Your task to perform on an android device: change the clock style Image 0: 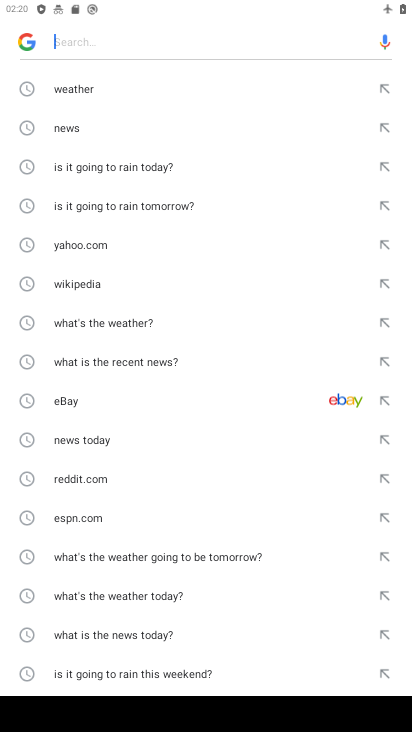
Step 0: press home button
Your task to perform on an android device: change the clock style Image 1: 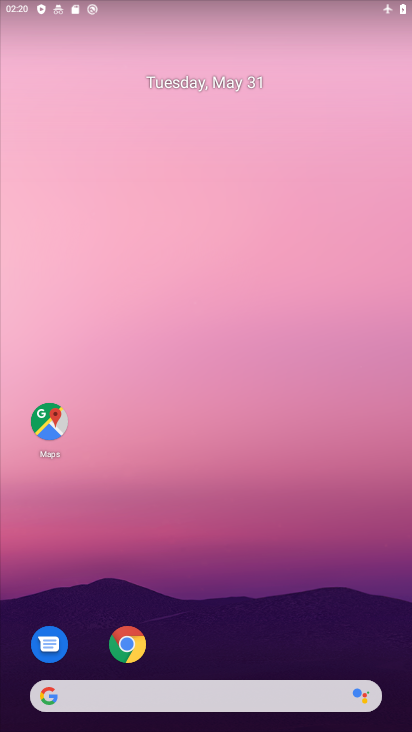
Step 1: drag from (313, 624) to (266, 135)
Your task to perform on an android device: change the clock style Image 2: 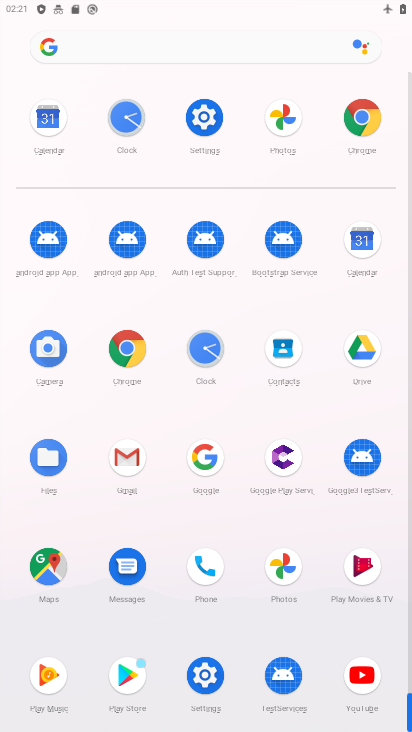
Step 2: click (205, 344)
Your task to perform on an android device: change the clock style Image 3: 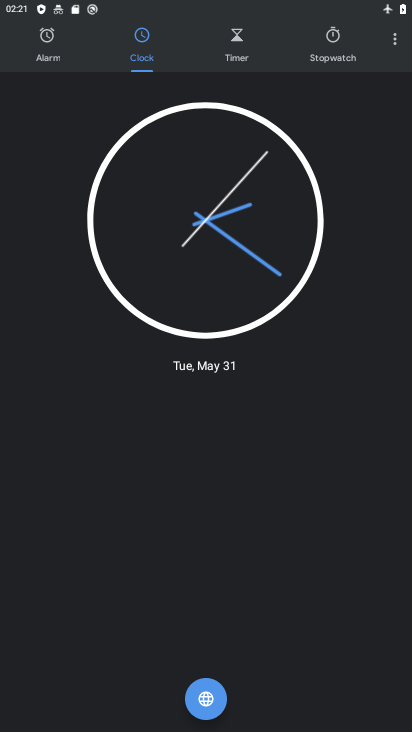
Step 3: click (400, 37)
Your task to perform on an android device: change the clock style Image 4: 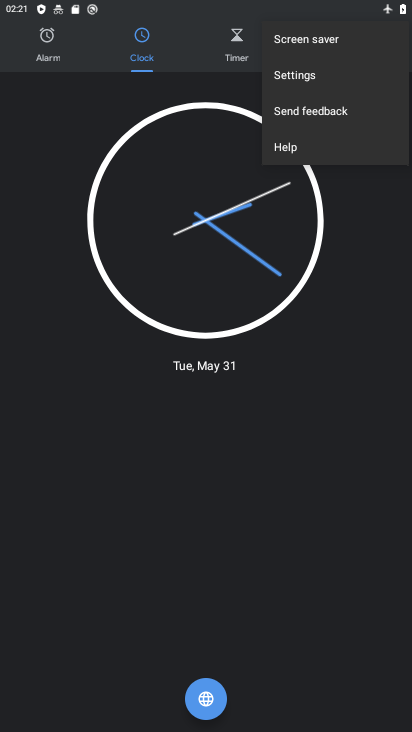
Step 4: click (296, 88)
Your task to perform on an android device: change the clock style Image 5: 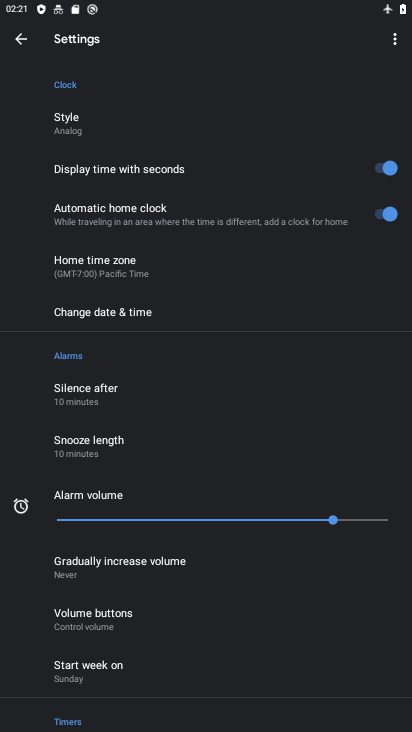
Step 5: drag from (89, 160) to (144, 551)
Your task to perform on an android device: change the clock style Image 6: 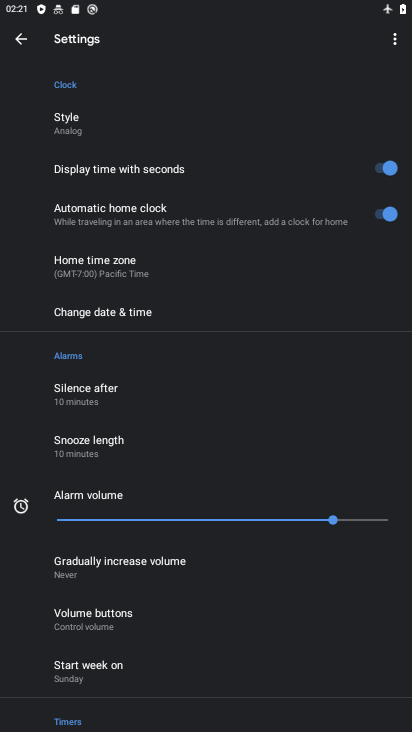
Step 6: click (72, 128)
Your task to perform on an android device: change the clock style Image 7: 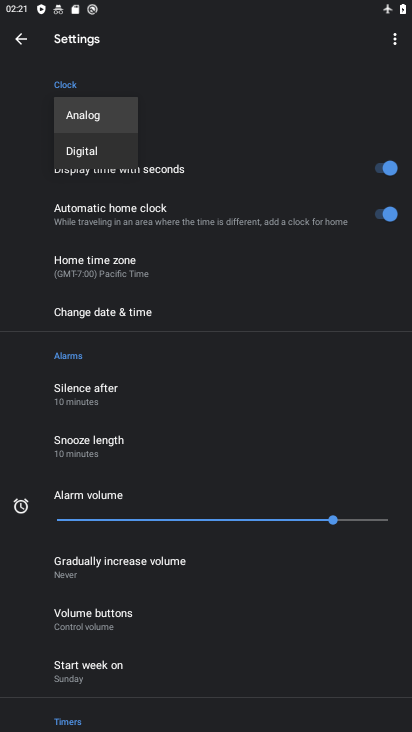
Step 7: click (99, 150)
Your task to perform on an android device: change the clock style Image 8: 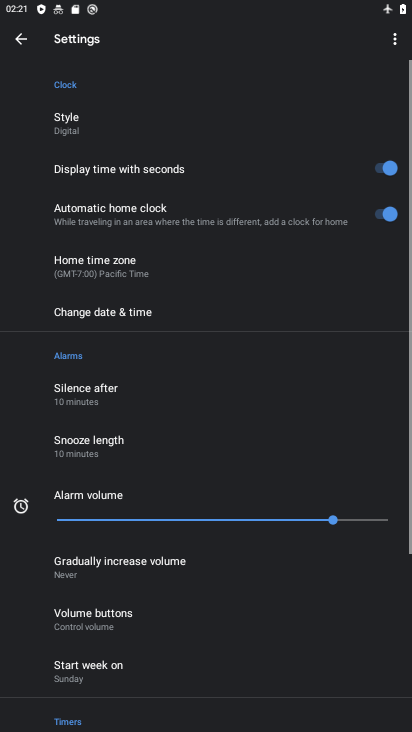
Step 8: task complete